Your task to perform on an android device: What's the weather? Image 0: 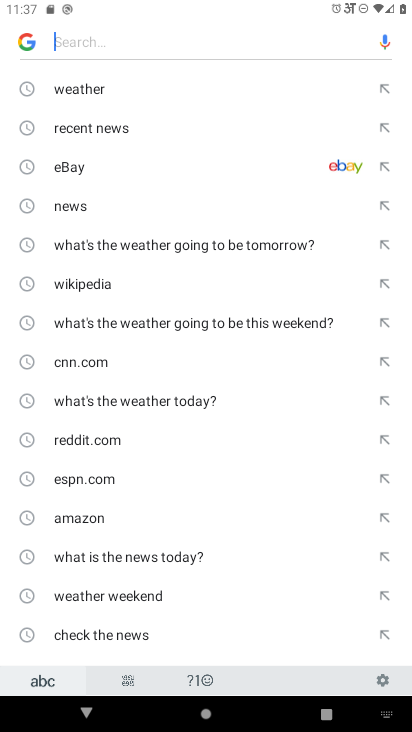
Step 0: press back button
Your task to perform on an android device: What's the weather? Image 1: 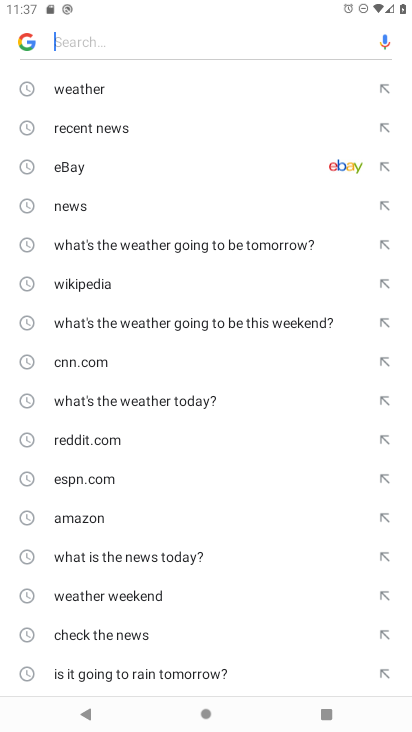
Step 1: press back button
Your task to perform on an android device: What's the weather? Image 2: 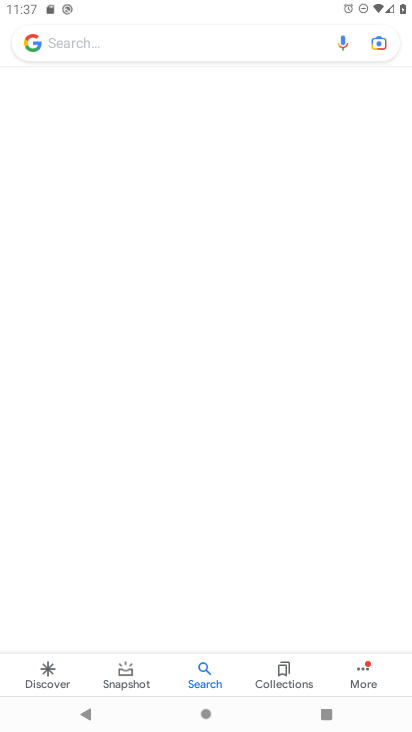
Step 2: press back button
Your task to perform on an android device: What's the weather? Image 3: 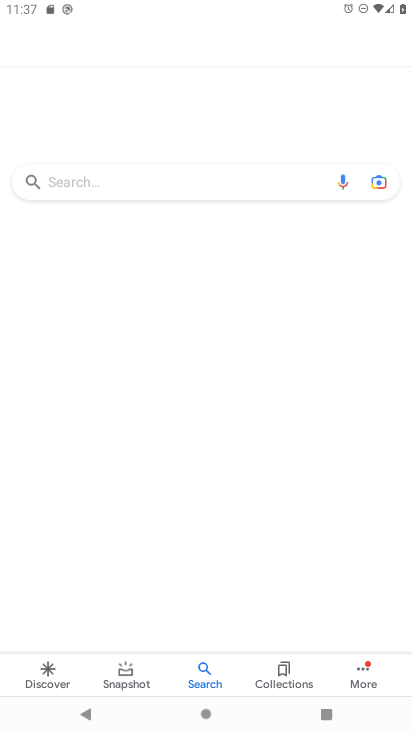
Step 3: press back button
Your task to perform on an android device: What's the weather? Image 4: 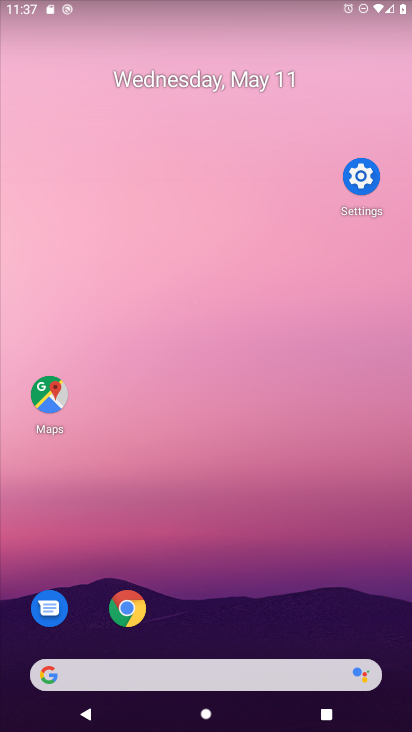
Step 4: drag from (5, 233) to (344, 402)
Your task to perform on an android device: What's the weather? Image 5: 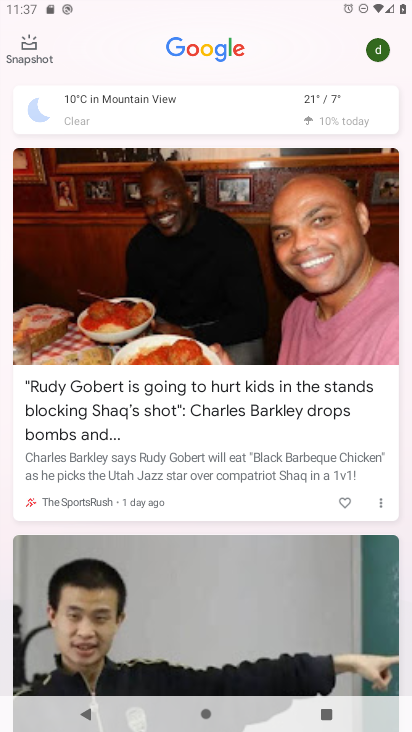
Step 5: click (149, 110)
Your task to perform on an android device: What's the weather? Image 6: 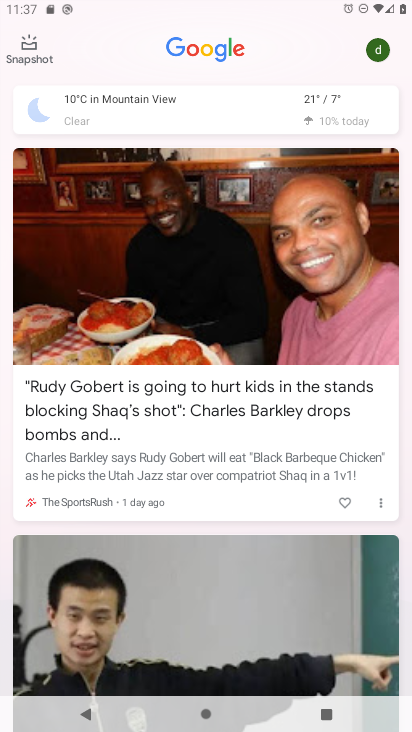
Step 6: click (149, 110)
Your task to perform on an android device: What's the weather? Image 7: 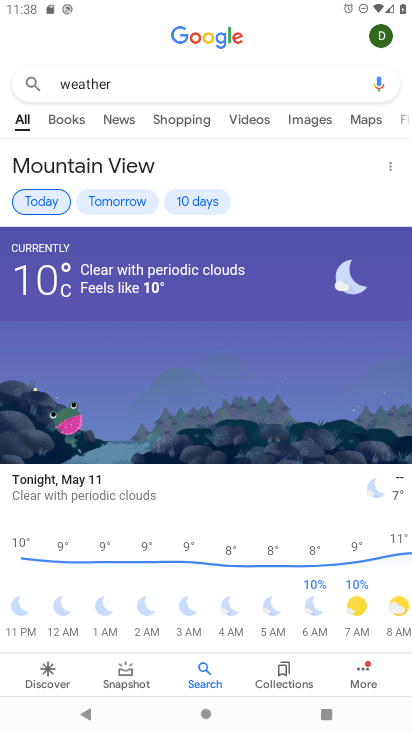
Step 7: task complete